Your task to perform on an android device: turn off priority inbox in the gmail app Image 0: 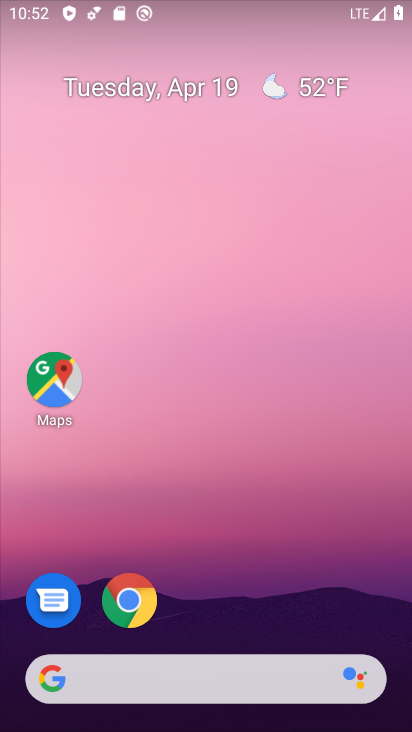
Step 0: drag from (219, 632) to (162, 53)
Your task to perform on an android device: turn off priority inbox in the gmail app Image 1: 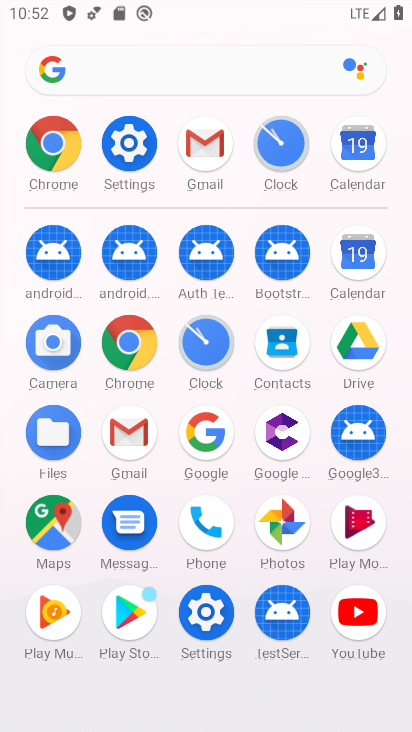
Step 1: click (121, 432)
Your task to perform on an android device: turn off priority inbox in the gmail app Image 2: 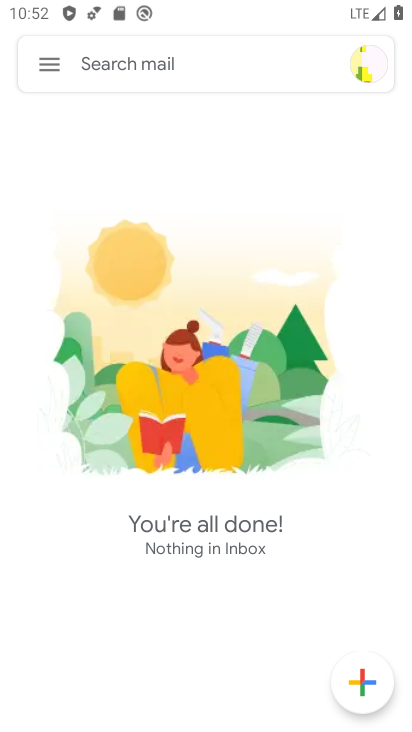
Step 2: click (42, 69)
Your task to perform on an android device: turn off priority inbox in the gmail app Image 3: 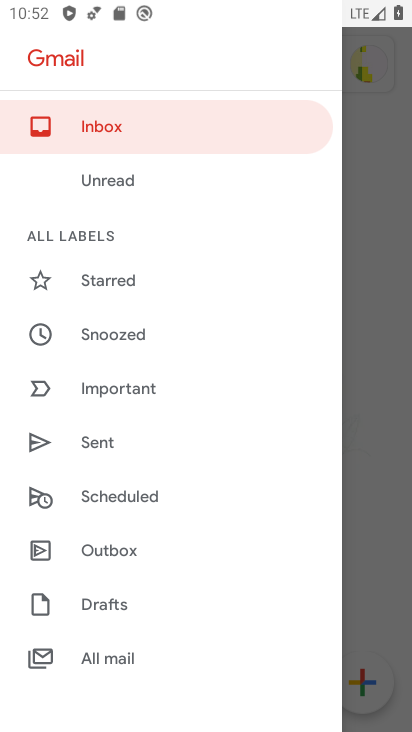
Step 3: drag from (211, 534) to (192, 226)
Your task to perform on an android device: turn off priority inbox in the gmail app Image 4: 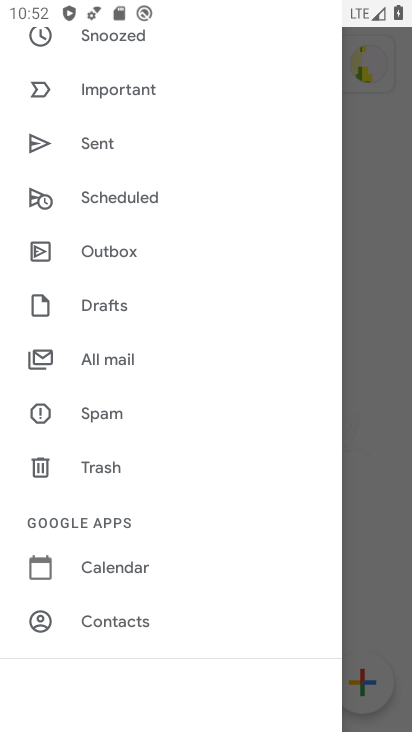
Step 4: drag from (152, 460) to (169, 134)
Your task to perform on an android device: turn off priority inbox in the gmail app Image 5: 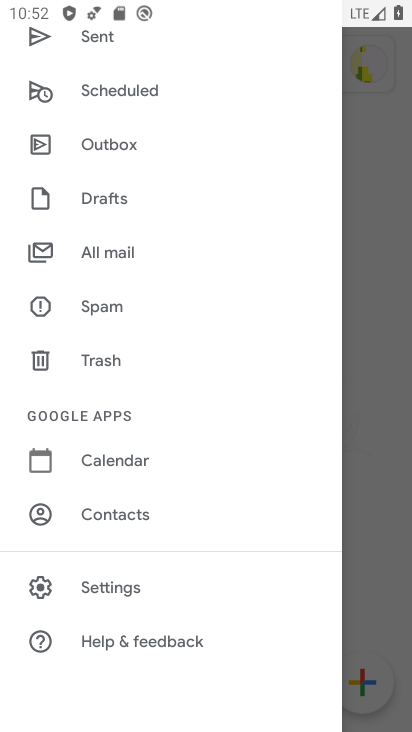
Step 5: click (117, 590)
Your task to perform on an android device: turn off priority inbox in the gmail app Image 6: 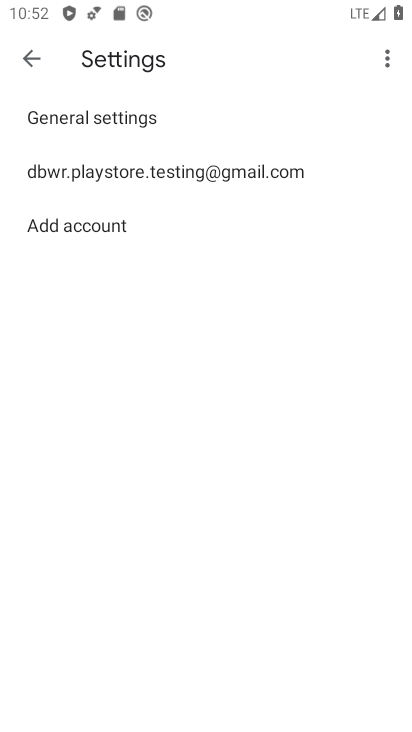
Step 6: click (150, 171)
Your task to perform on an android device: turn off priority inbox in the gmail app Image 7: 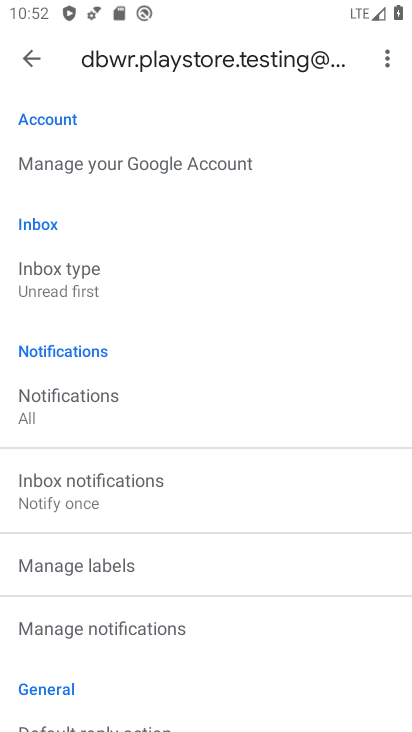
Step 7: click (60, 274)
Your task to perform on an android device: turn off priority inbox in the gmail app Image 8: 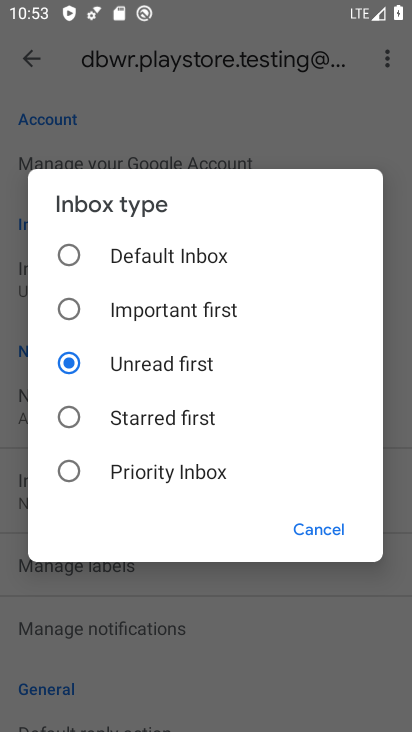
Step 8: task complete